Your task to perform on an android device: turn smart compose on in the gmail app Image 0: 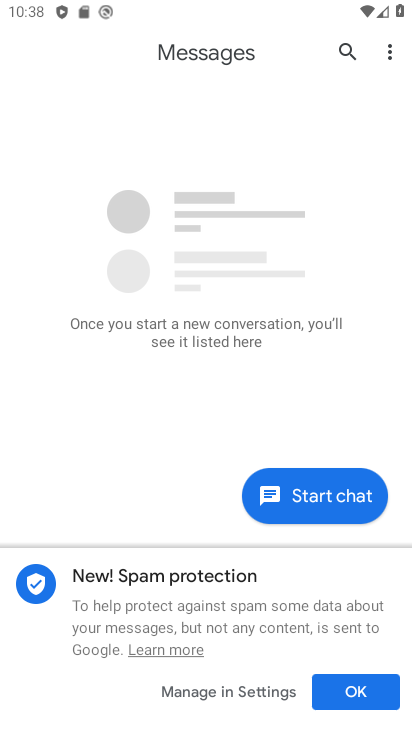
Step 0: press back button
Your task to perform on an android device: turn smart compose on in the gmail app Image 1: 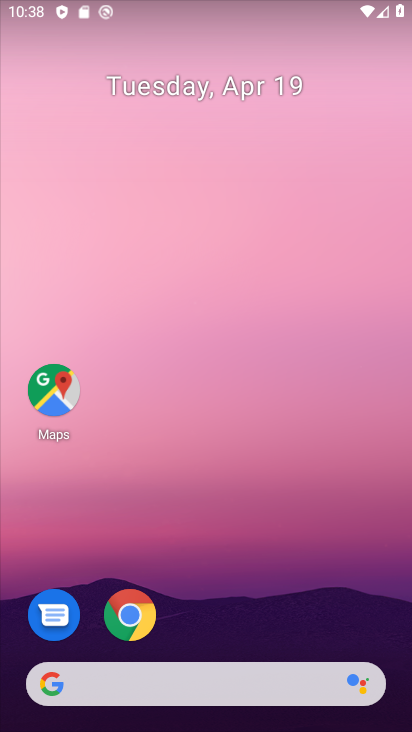
Step 1: drag from (195, 650) to (196, 286)
Your task to perform on an android device: turn smart compose on in the gmail app Image 2: 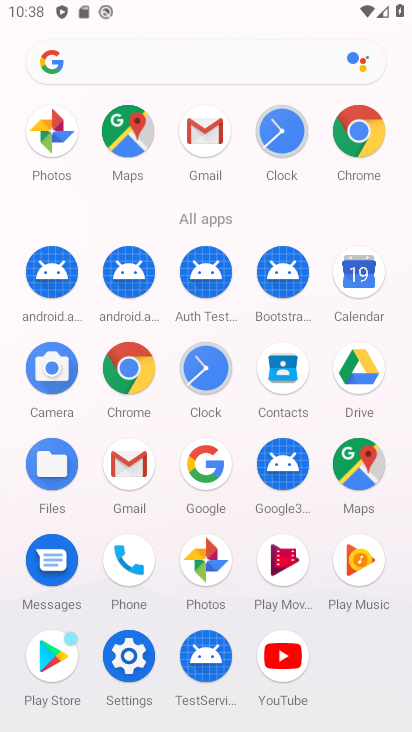
Step 2: click (127, 470)
Your task to perform on an android device: turn smart compose on in the gmail app Image 3: 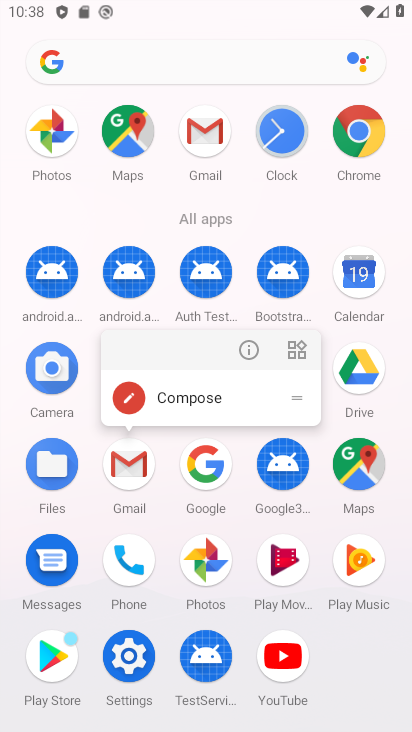
Step 3: click (133, 462)
Your task to perform on an android device: turn smart compose on in the gmail app Image 4: 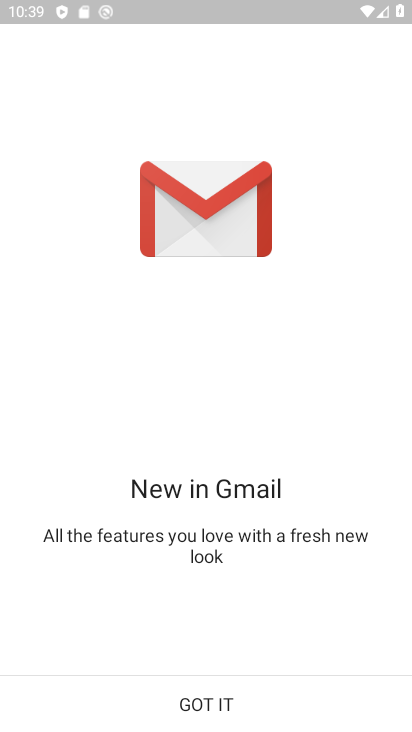
Step 4: click (202, 707)
Your task to perform on an android device: turn smart compose on in the gmail app Image 5: 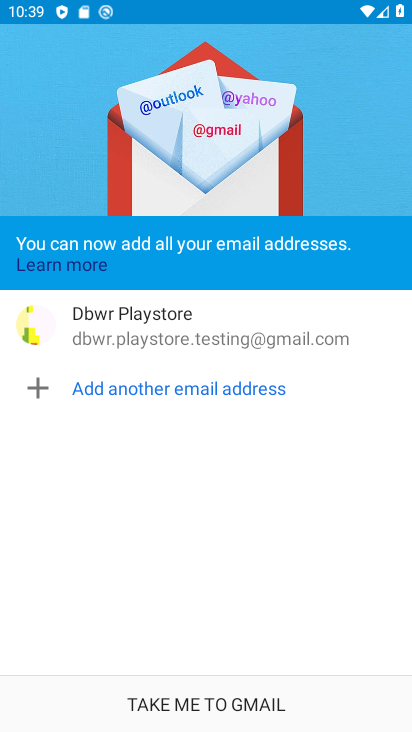
Step 5: click (203, 698)
Your task to perform on an android device: turn smart compose on in the gmail app Image 6: 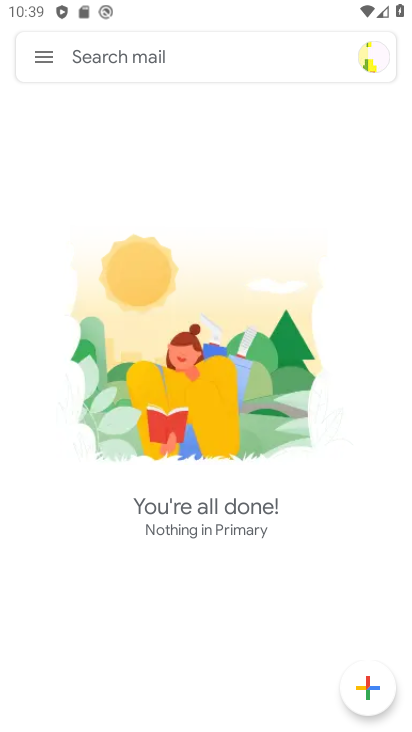
Step 6: click (40, 57)
Your task to perform on an android device: turn smart compose on in the gmail app Image 7: 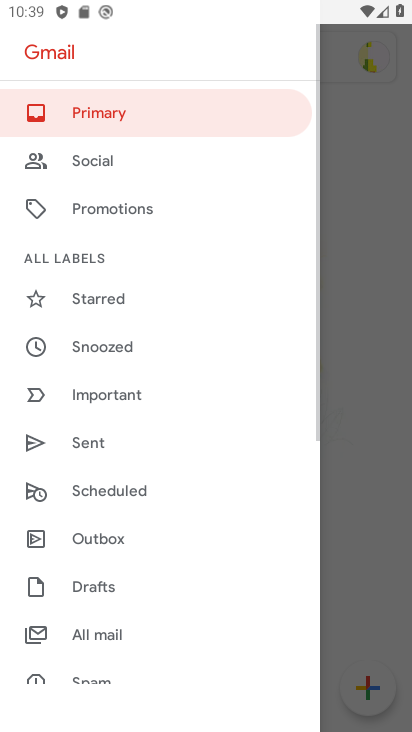
Step 7: drag from (116, 670) to (116, 240)
Your task to perform on an android device: turn smart compose on in the gmail app Image 8: 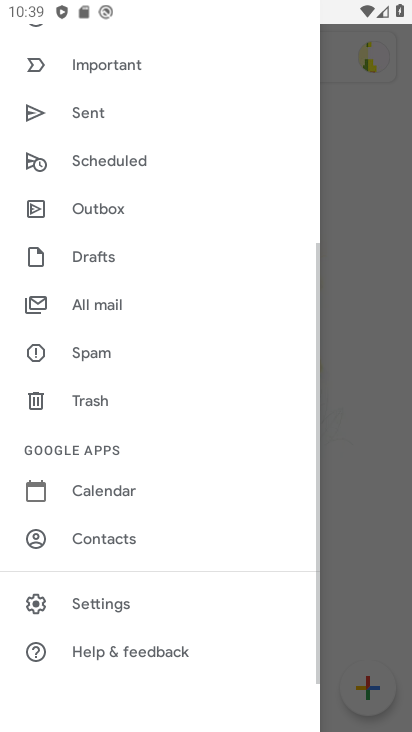
Step 8: click (104, 606)
Your task to perform on an android device: turn smart compose on in the gmail app Image 9: 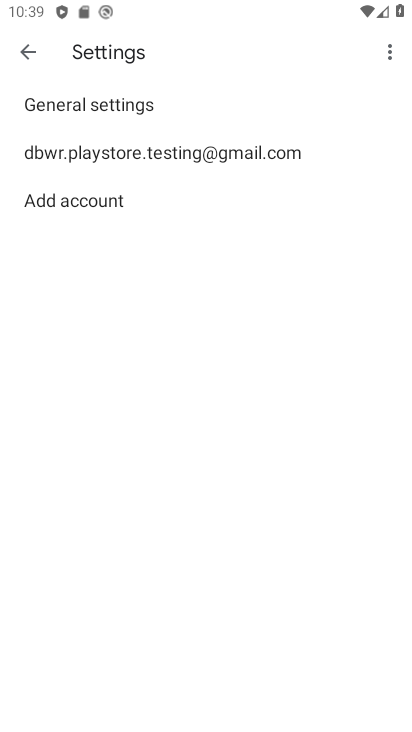
Step 9: click (185, 147)
Your task to perform on an android device: turn smart compose on in the gmail app Image 10: 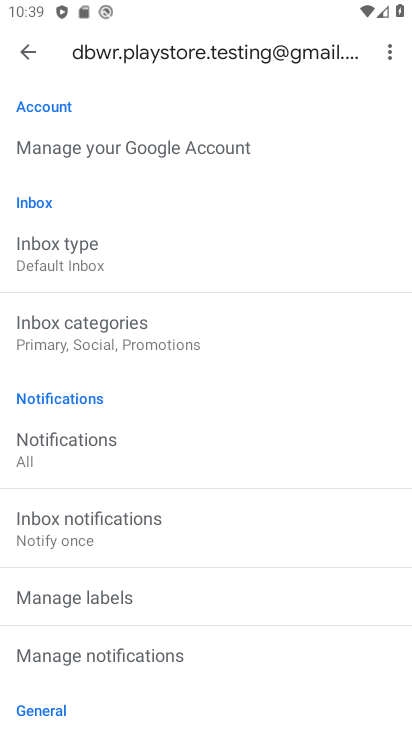
Step 10: task complete